Your task to perform on an android device: empty trash in the gmail app Image 0: 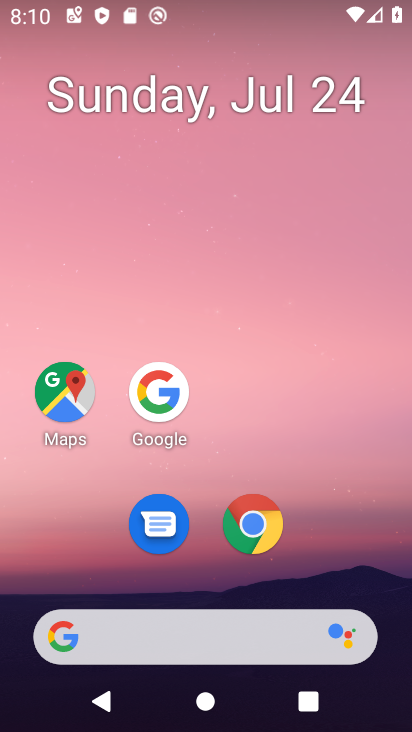
Step 0: drag from (165, 649) to (276, 44)
Your task to perform on an android device: empty trash in the gmail app Image 1: 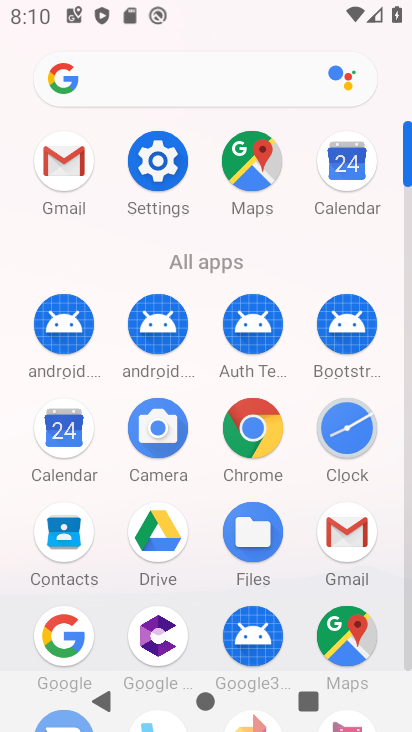
Step 1: click (75, 169)
Your task to perform on an android device: empty trash in the gmail app Image 2: 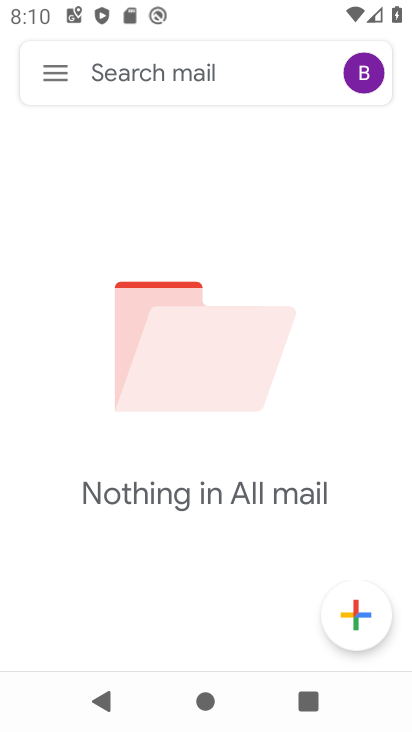
Step 2: click (54, 75)
Your task to perform on an android device: empty trash in the gmail app Image 3: 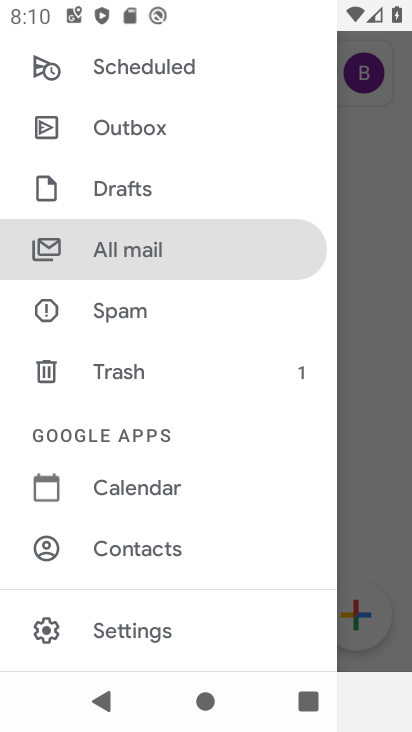
Step 3: click (125, 374)
Your task to perform on an android device: empty trash in the gmail app Image 4: 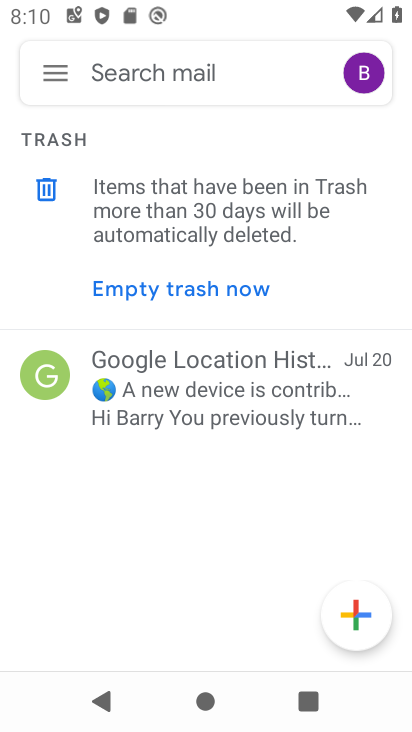
Step 4: click (161, 288)
Your task to perform on an android device: empty trash in the gmail app Image 5: 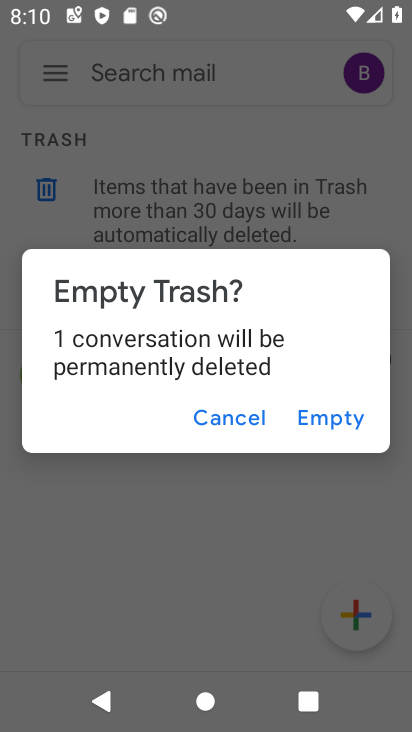
Step 5: click (340, 418)
Your task to perform on an android device: empty trash in the gmail app Image 6: 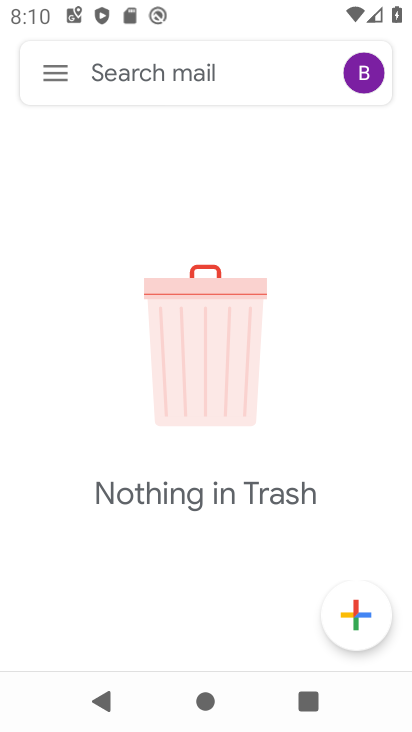
Step 6: task complete